Your task to perform on an android device: allow cookies in the chrome app Image 0: 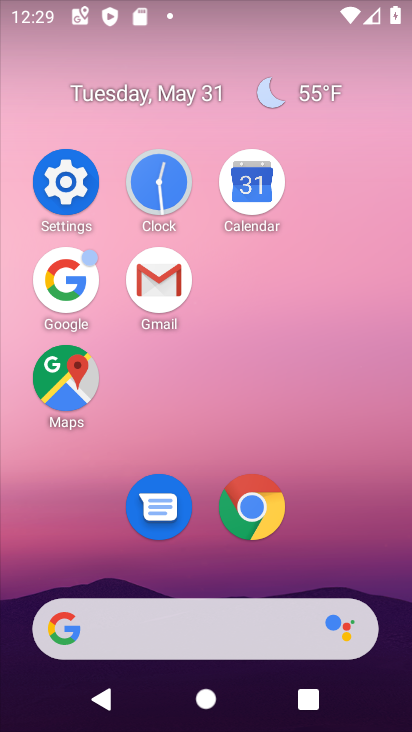
Step 0: click (244, 513)
Your task to perform on an android device: allow cookies in the chrome app Image 1: 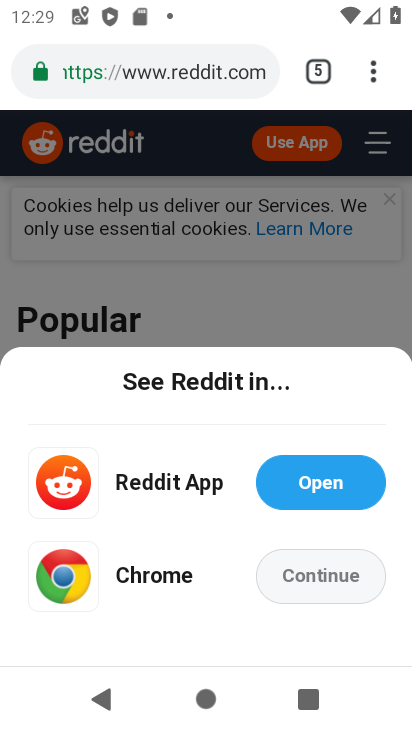
Step 1: click (375, 72)
Your task to perform on an android device: allow cookies in the chrome app Image 2: 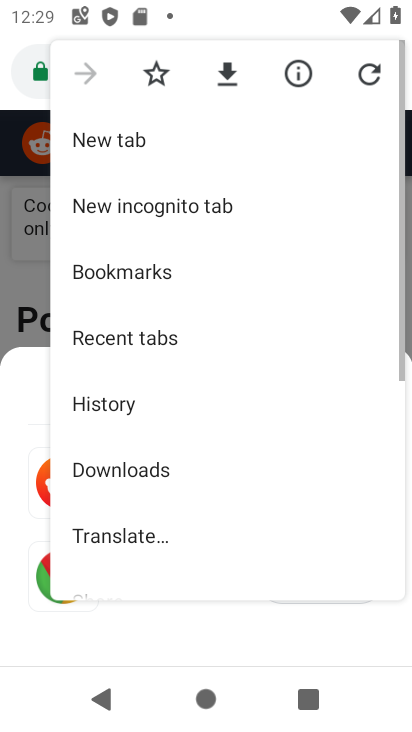
Step 2: drag from (163, 497) to (152, 178)
Your task to perform on an android device: allow cookies in the chrome app Image 3: 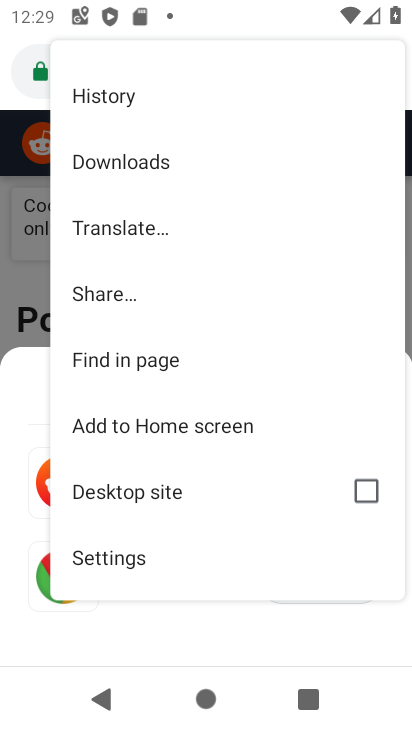
Step 3: click (139, 563)
Your task to perform on an android device: allow cookies in the chrome app Image 4: 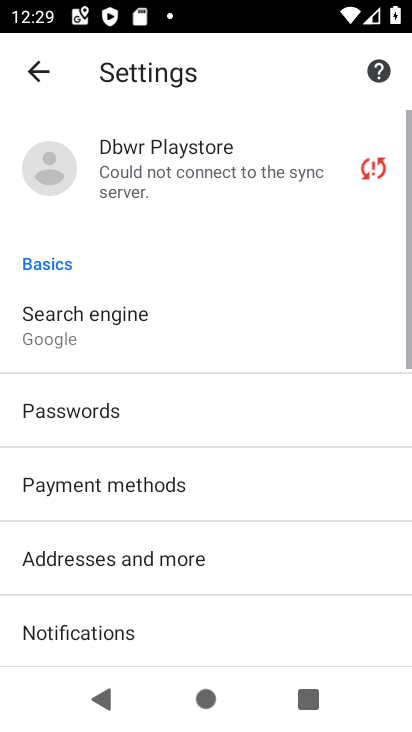
Step 4: drag from (139, 563) to (175, 236)
Your task to perform on an android device: allow cookies in the chrome app Image 5: 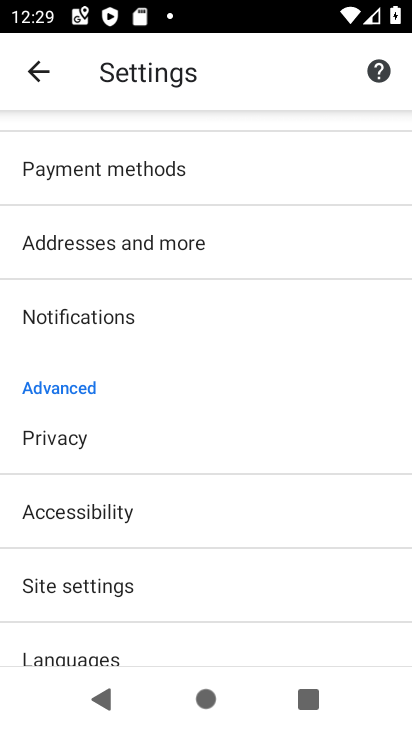
Step 5: drag from (137, 580) to (164, 251)
Your task to perform on an android device: allow cookies in the chrome app Image 6: 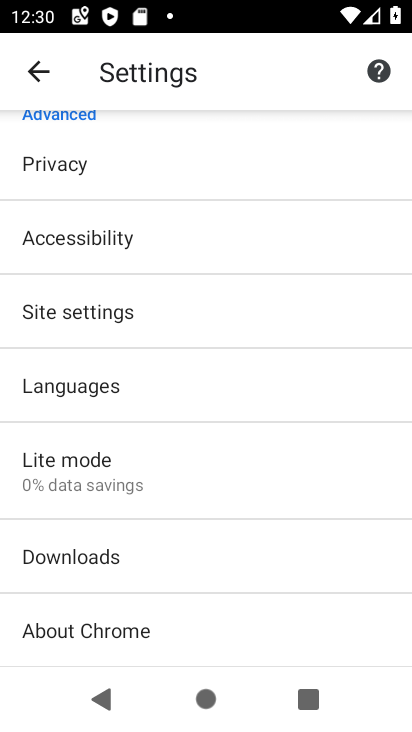
Step 6: click (210, 328)
Your task to perform on an android device: allow cookies in the chrome app Image 7: 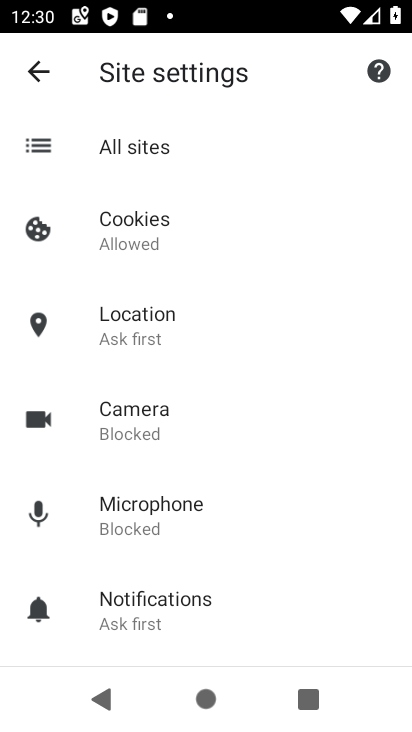
Step 7: click (196, 238)
Your task to perform on an android device: allow cookies in the chrome app Image 8: 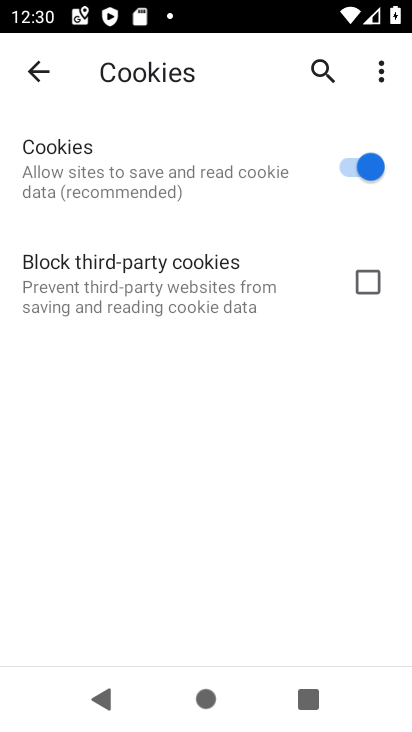
Step 8: task complete